Your task to perform on an android device: Open the map Image 0: 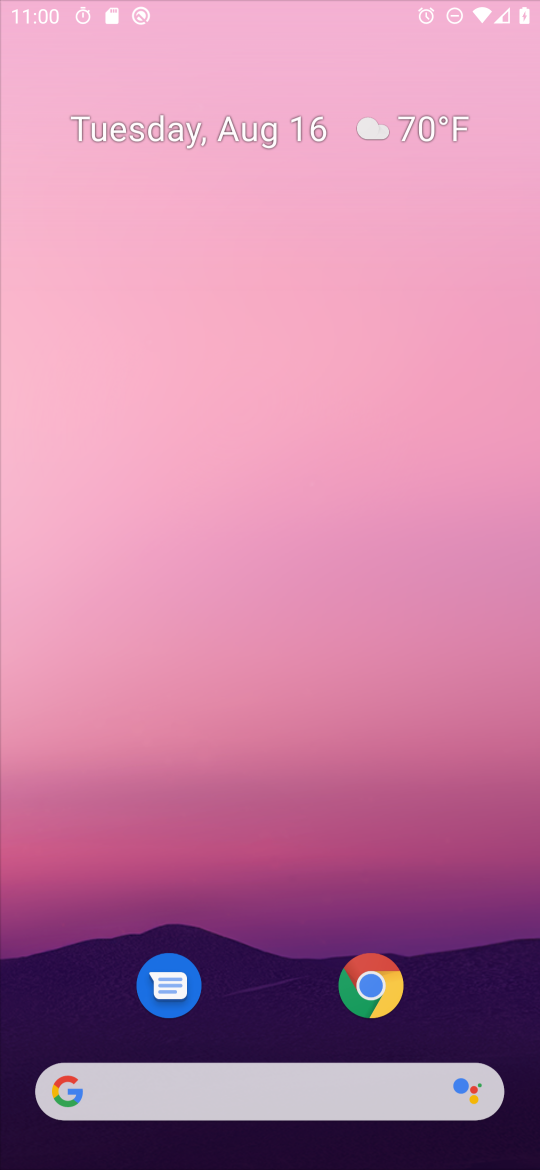
Step 0: press home button
Your task to perform on an android device: Open the map Image 1: 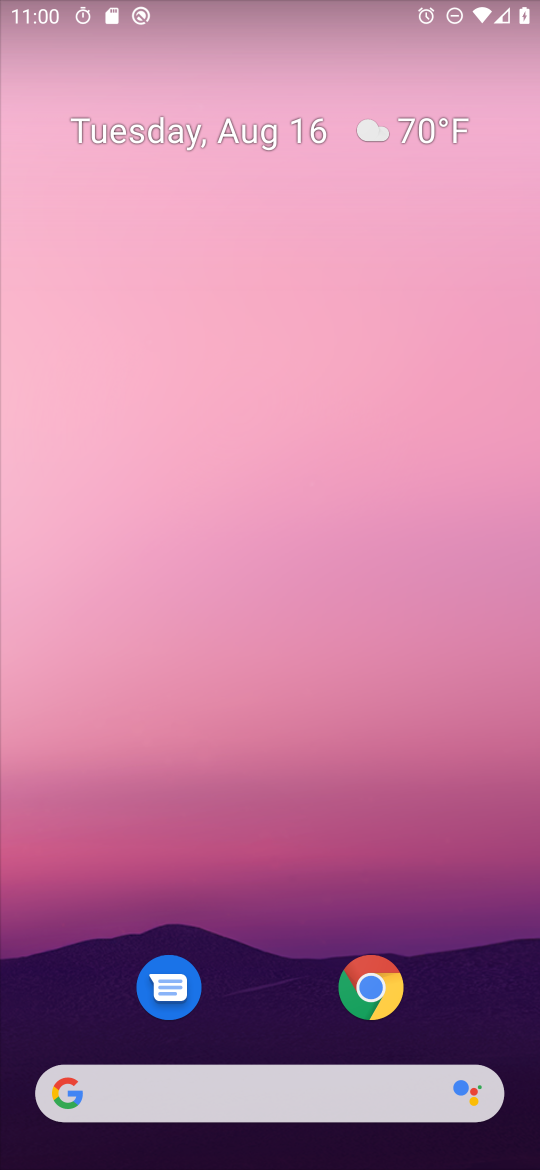
Step 1: drag from (21, 1127) to (166, 584)
Your task to perform on an android device: Open the map Image 2: 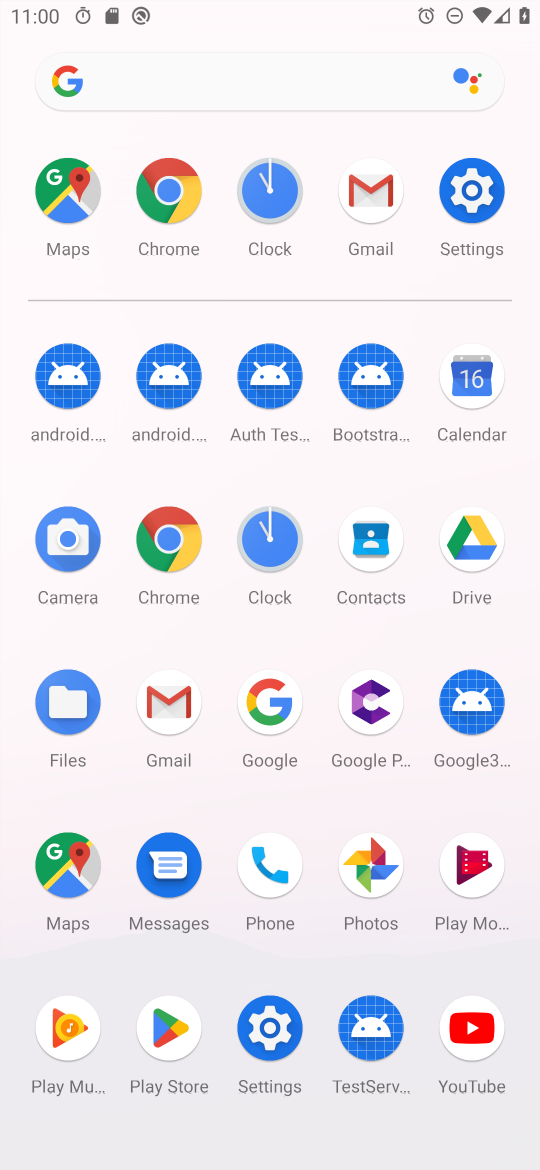
Step 2: click (65, 901)
Your task to perform on an android device: Open the map Image 3: 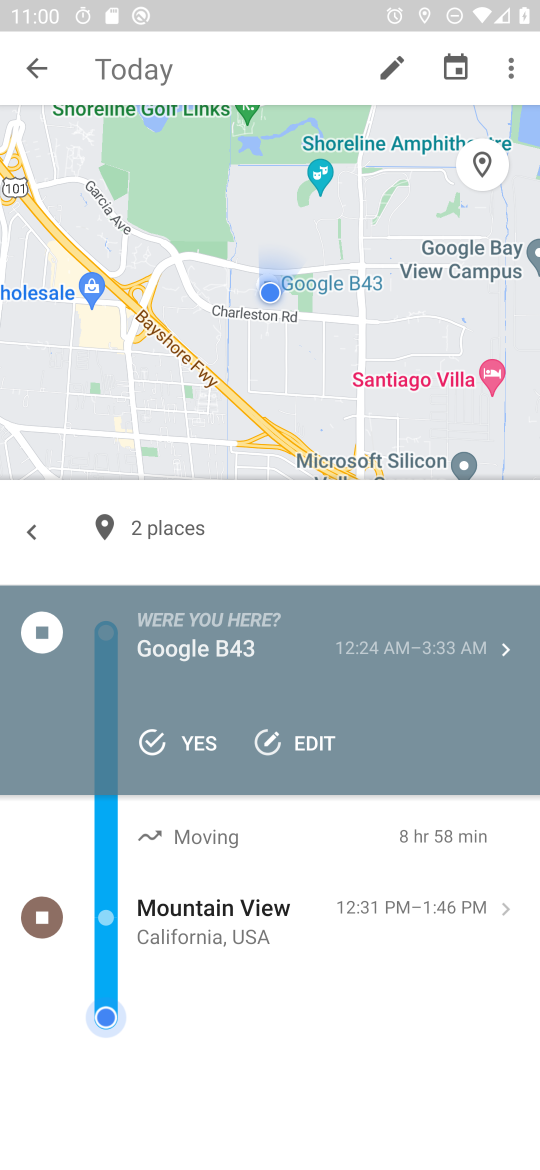
Step 3: task complete